Your task to perform on an android device: turn off improve location accuracy Image 0: 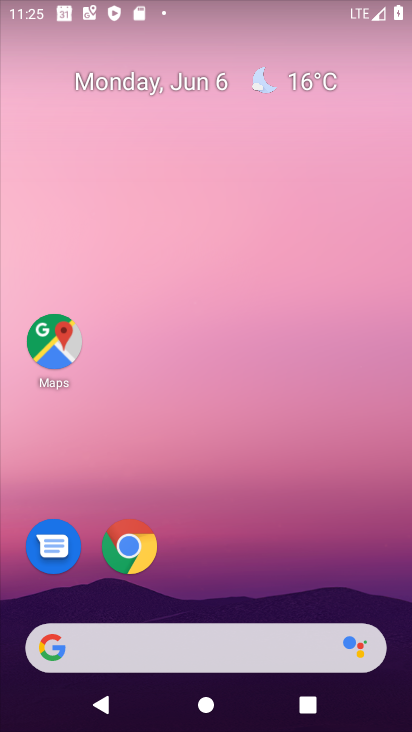
Step 0: drag from (252, 542) to (223, 150)
Your task to perform on an android device: turn off improve location accuracy Image 1: 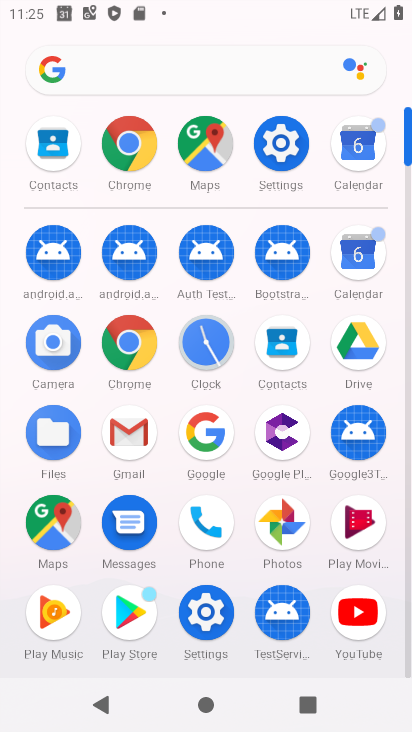
Step 1: click (297, 164)
Your task to perform on an android device: turn off improve location accuracy Image 2: 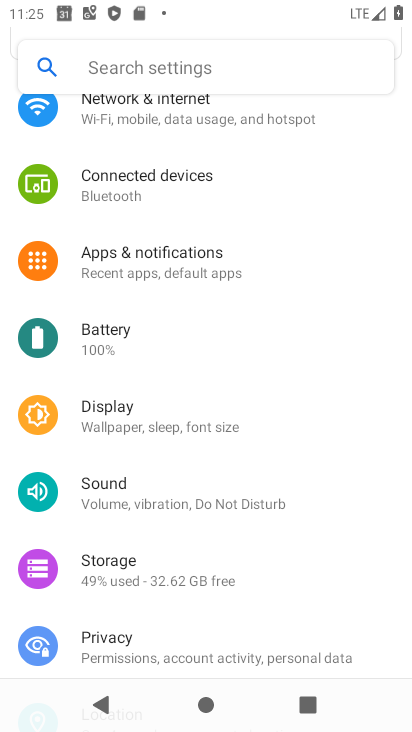
Step 2: drag from (220, 513) to (241, 223)
Your task to perform on an android device: turn off improve location accuracy Image 3: 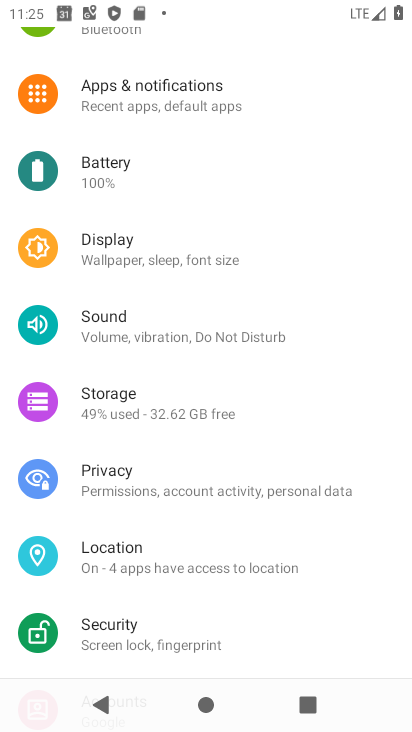
Step 3: click (152, 556)
Your task to perform on an android device: turn off improve location accuracy Image 4: 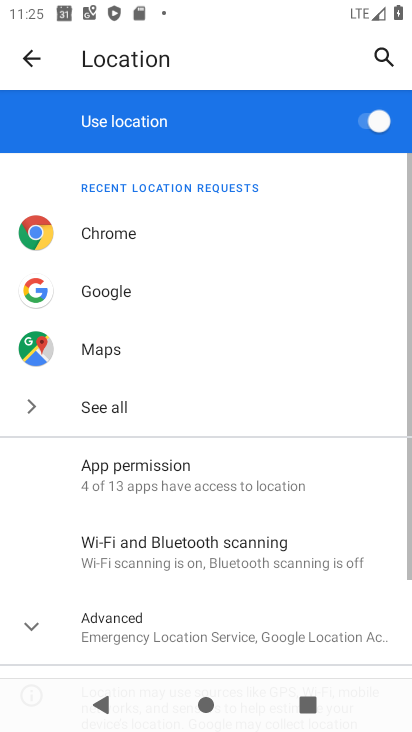
Step 4: click (199, 650)
Your task to perform on an android device: turn off improve location accuracy Image 5: 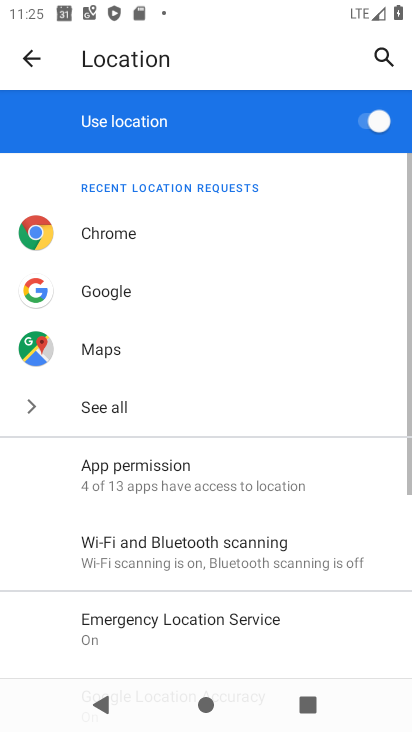
Step 5: drag from (350, 644) to (411, 264)
Your task to perform on an android device: turn off improve location accuracy Image 6: 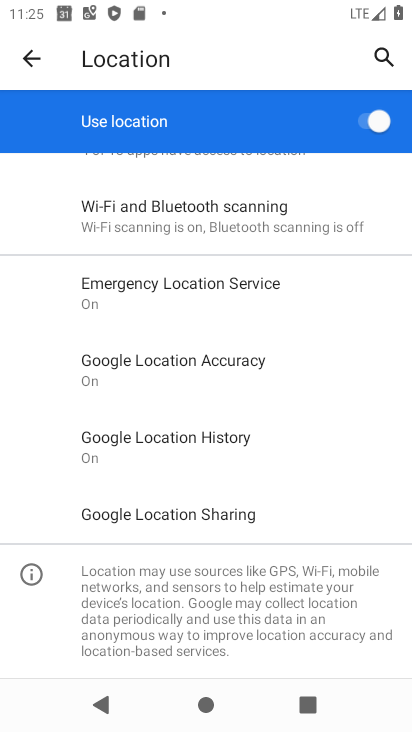
Step 6: click (220, 377)
Your task to perform on an android device: turn off improve location accuracy Image 7: 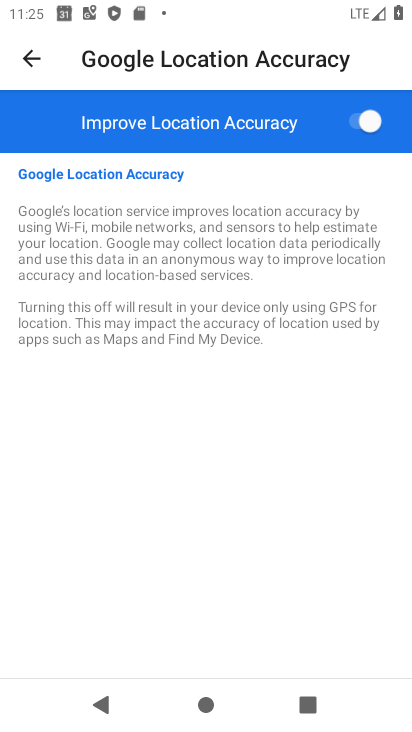
Step 7: click (370, 124)
Your task to perform on an android device: turn off improve location accuracy Image 8: 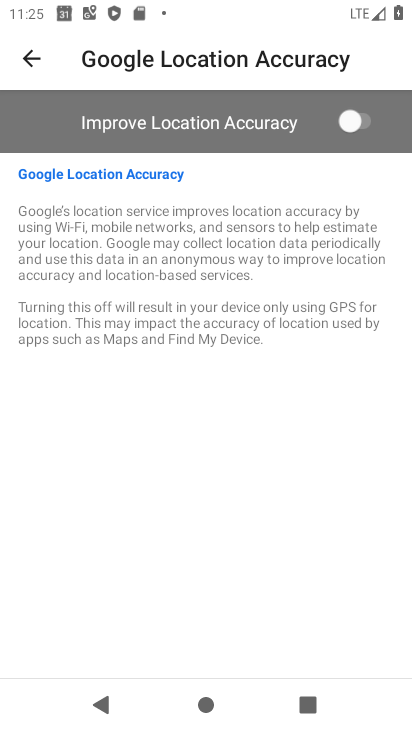
Step 8: task complete